Your task to perform on an android device: Open internet settings Image 0: 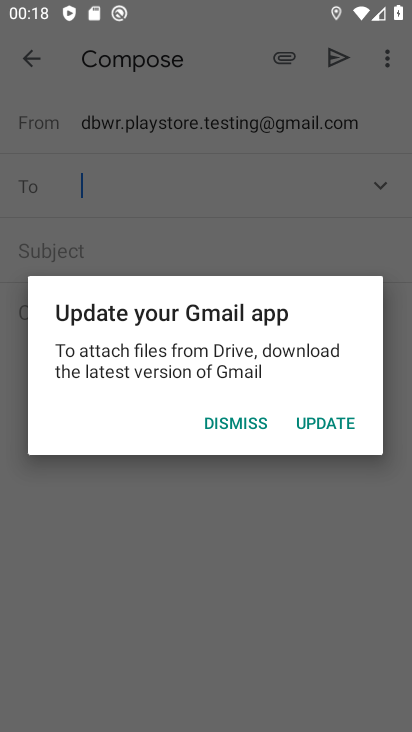
Step 0: press home button
Your task to perform on an android device: Open internet settings Image 1: 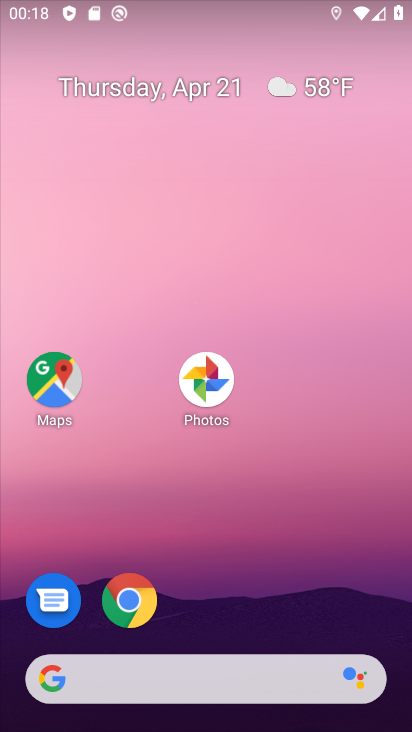
Step 1: drag from (196, 645) to (167, 12)
Your task to perform on an android device: Open internet settings Image 2: 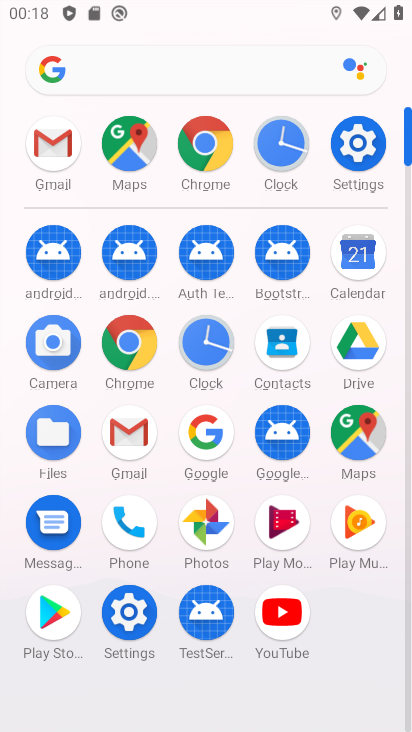
Step 2: click (358, 133)
Your task to perform on an android device: Open internet settings Image 3: 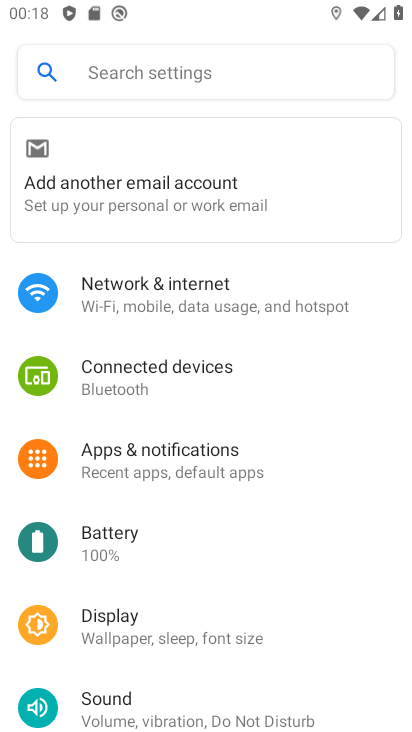
Step 3: click (159, 303)
Your task to perform on an android device: Open internet settings Image 4: 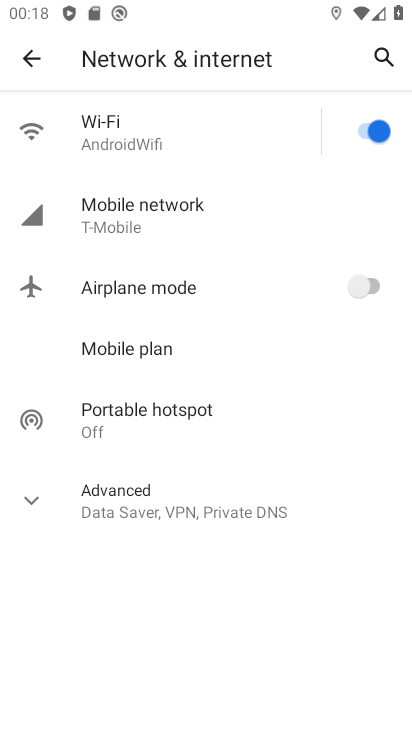
Step 4: click (154, 230)
Your task to perform on an android device: Open internet settings Image 5: 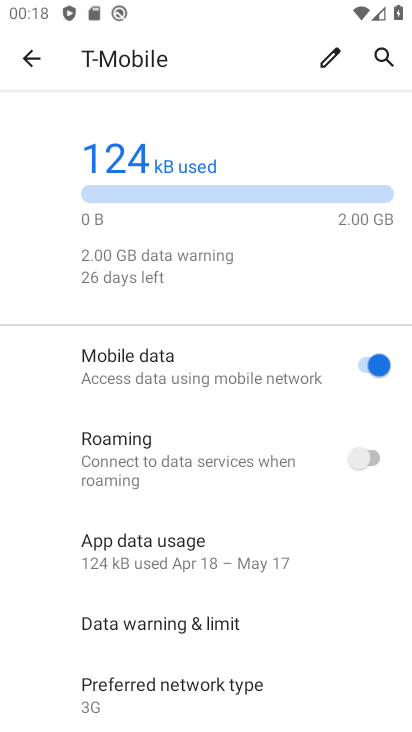
Step 5: drag from (232, 553) to (199, 271)
Your task to perform on an android device: Open internet settings Image 6: 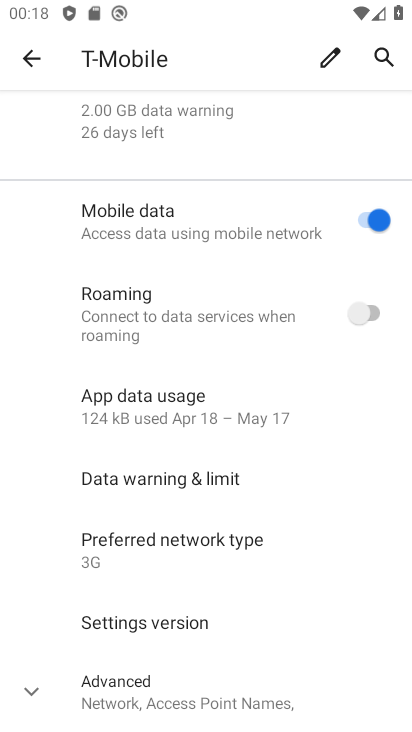
Step 6: click (166, 688)
Your task to perform on an android device: Open internet settings Image 7: 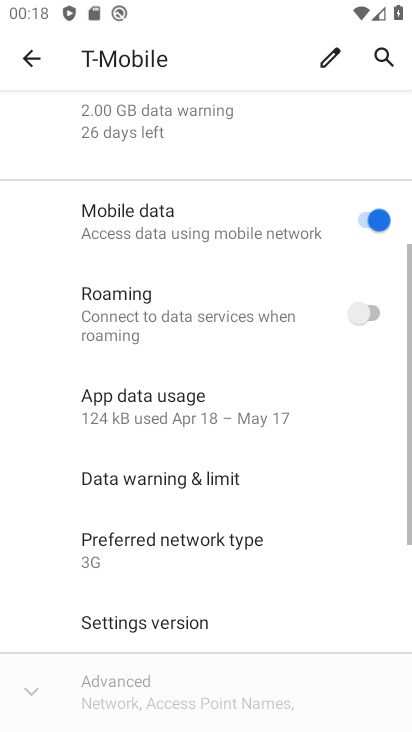
Step 7: task complete